Your task to perform on an android device: Open maps Image 0: 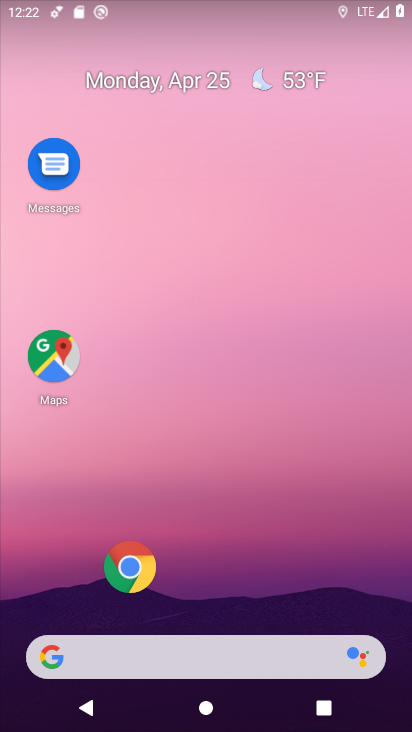
Step 0: drag from (247, 263) to (257, 74)
Your task to perform on an android device: Open maps Image 1: 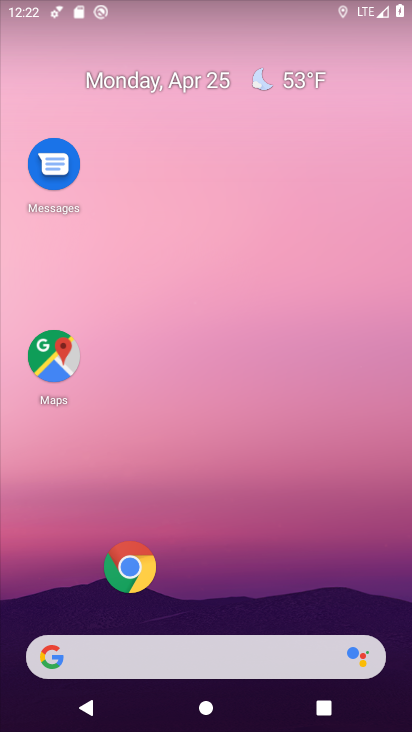
Step 1: click (64, 367)
Your task to perform on an android device: Open maps Image 2: 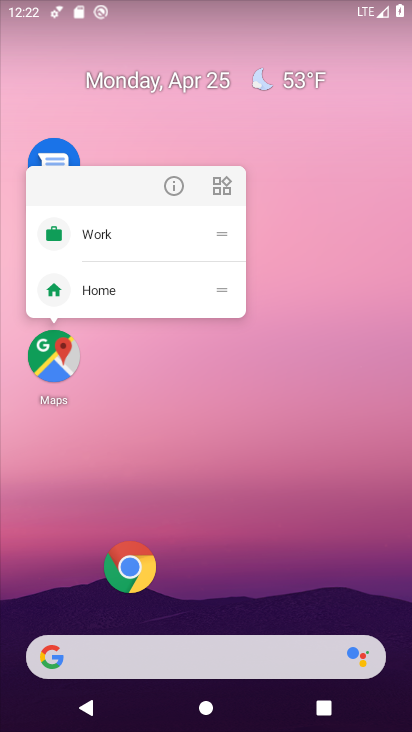
Step 2: click (69, 356)
Your task to perform on an android device: Open maps Image 3: 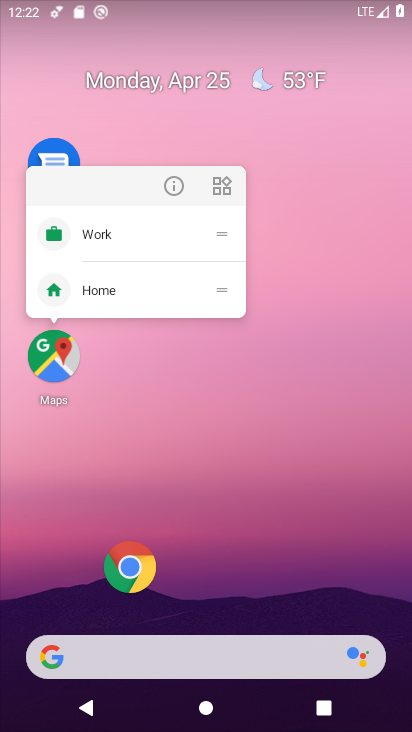
Step 3: click (72, 354)
Your task to perform on an android device: Open maps Image 4: 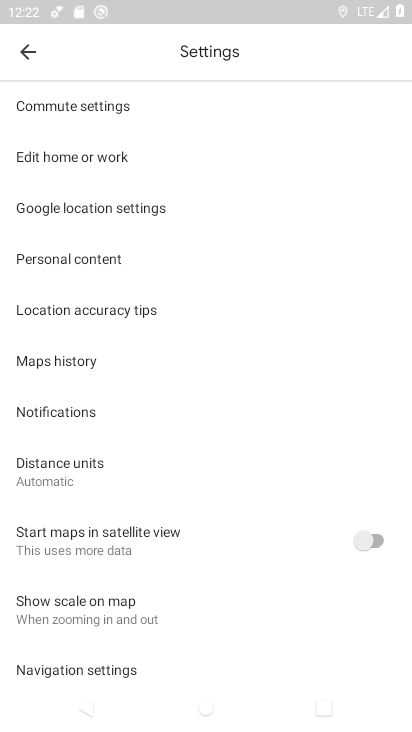
Step 4: click (34, 58)
Your task to perform on an android device: Open maps Image 5: 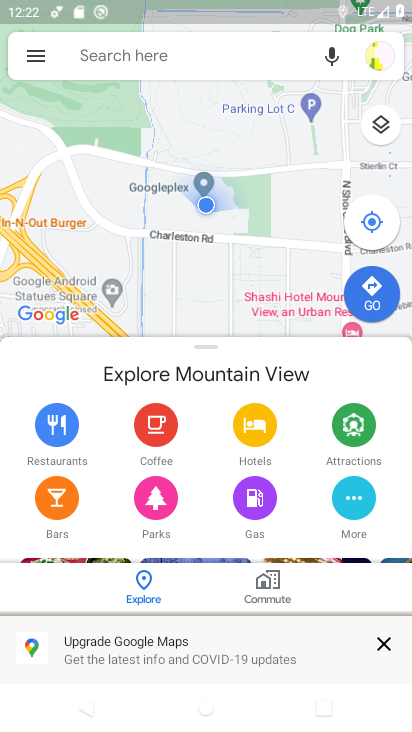
Step 5: click (384, 651)
Your task to perform on an android device: Open maps Image 6: 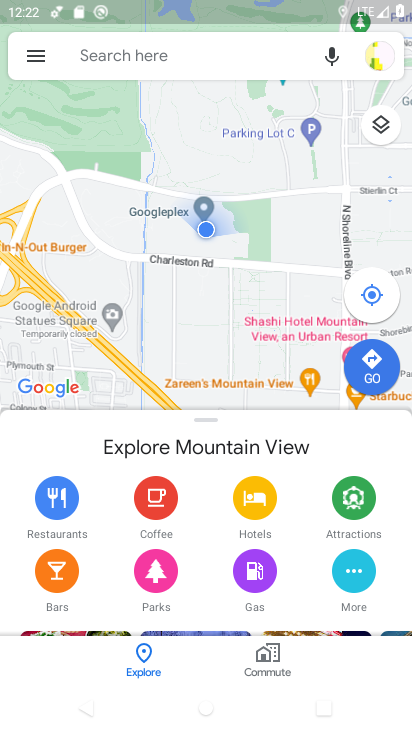
Step 6: task complete